Your task to perform on an android device: Search for pizza restaurants on Maps Image 0: 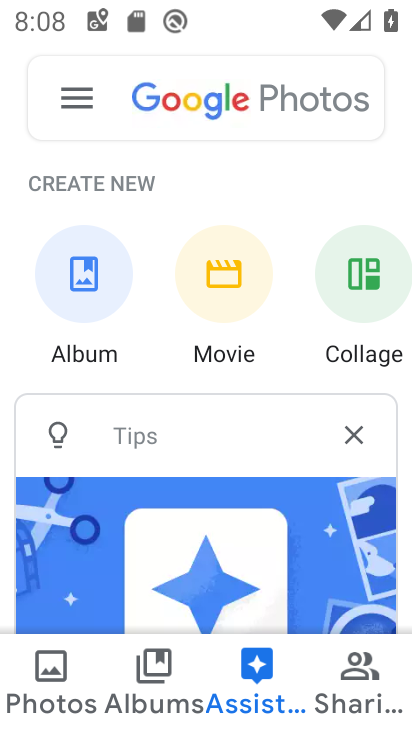
Step 0: press back button
Your task to perform on an android device: Search for pizza restaurants on Maps Image 1: 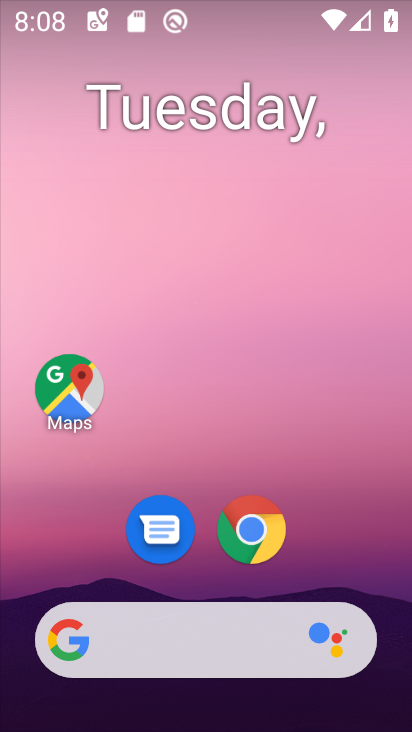
Step 1: click (51, 379)
Your task to perform on an android device: Search for pizza restaurants on Maps Image 2: 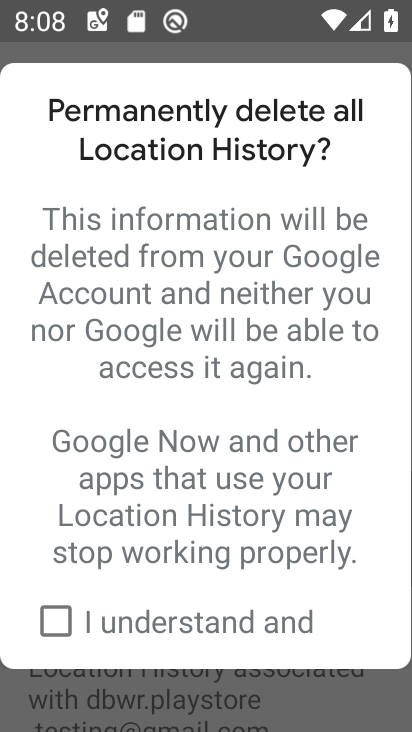
Step 2: drag from (154, 522) to (213, 123)
Your task to perform on an android device: Search for pizza restaurants on Maps Image 3: 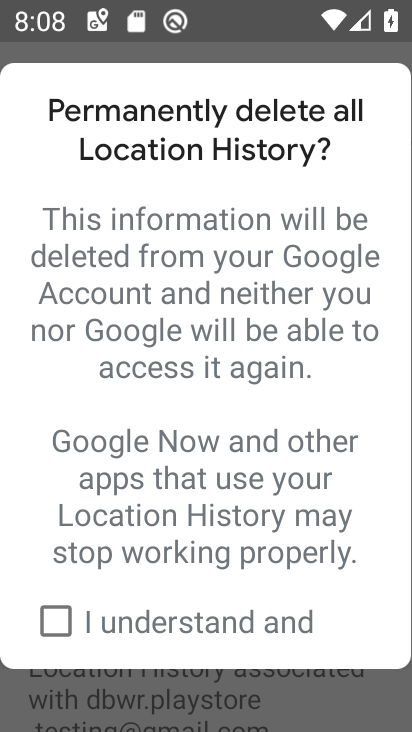
Step 3: press back button
Your task to perform on an android device: Search for pizza restaurants on Maps Image 4: 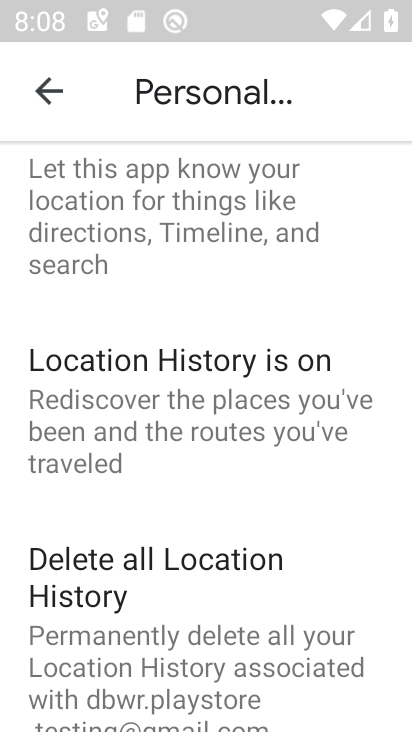
Step 4: click (28, 85)
Your task to perform on an android device: Search for pizza restaurants on Maps Image 5: 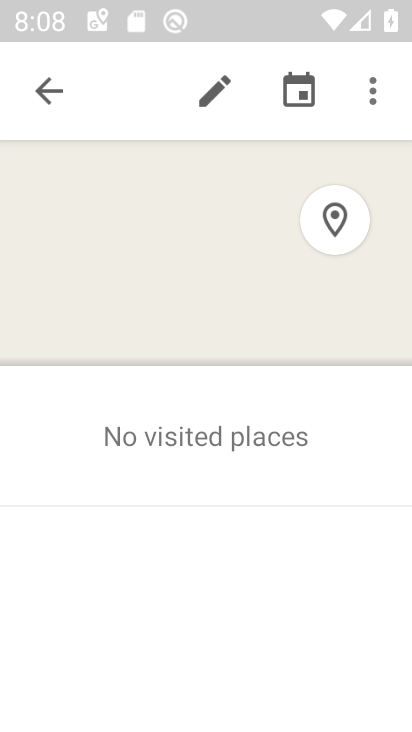
Step 5: click (50, 82)
Your task to perform on an android device: Search for pizza restaurants on Maps Image 6: 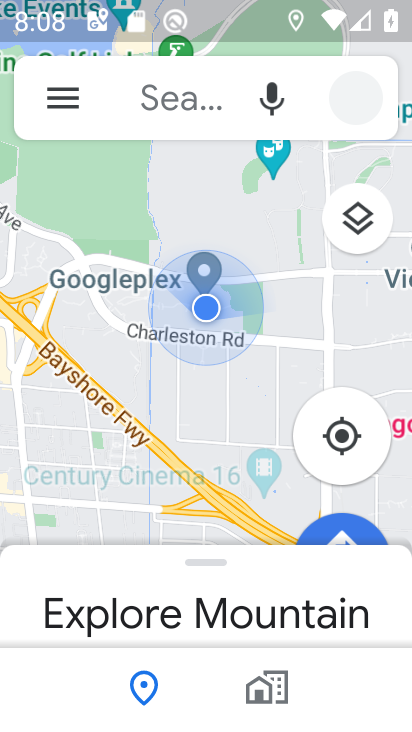
Step 6: click (50, 83)
Your task to perform on an android device: Search for pizza restaurants on Maps Image 7: 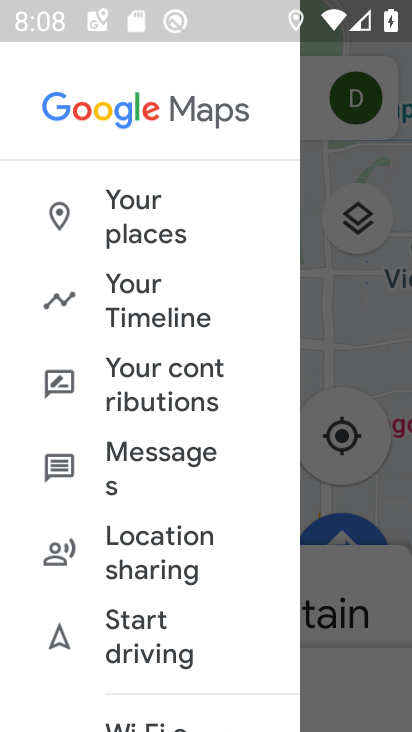
Step 7: click (327, 307)
Your task to perform on an android device: Search for pizza restaurants on Maps Image 8: 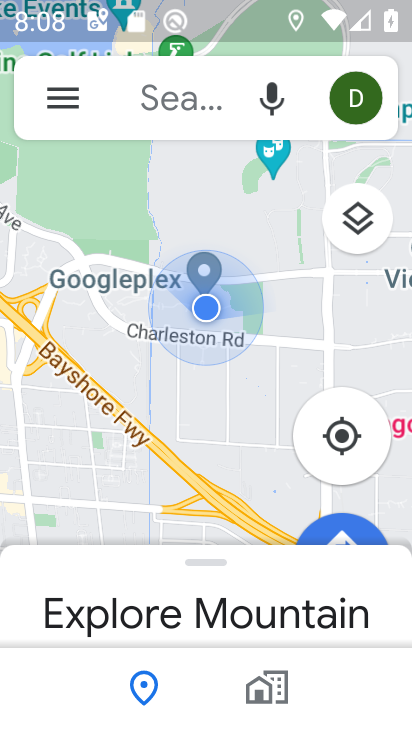
Step 8: click (145, 106)
Your task to perform on an android device: Search for pizza restaurants on Maps Image 9: 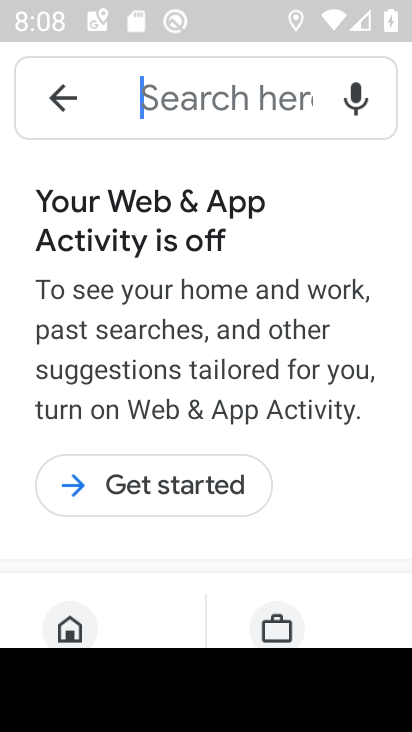
Step 9: type "pizza restraurant"
Your task to perform on an android device: Search for pizza restaurants on Maps Image 10: 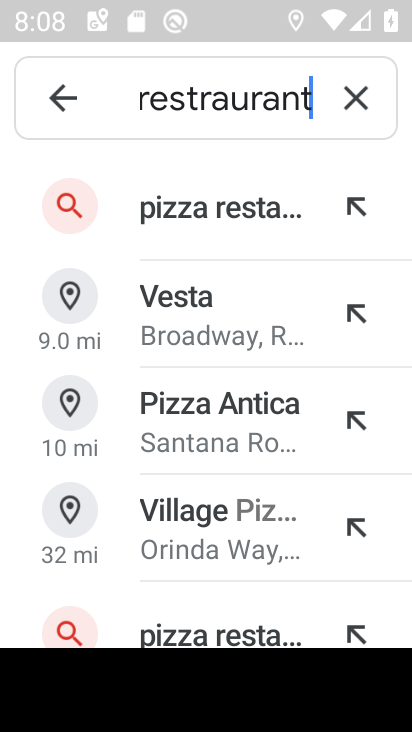
Step 10: click (226, 210)
Your task to perform on an android device: Search for pizza restaurants on Maps Image 11: 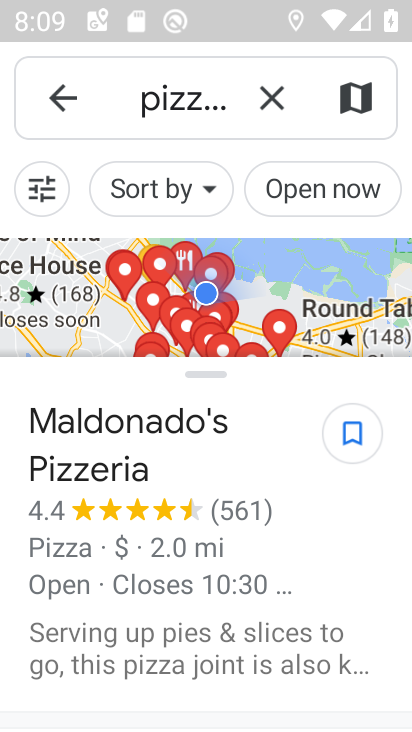
Step 11: task complete